Your task to perform on an android device: add a contact Image 0: 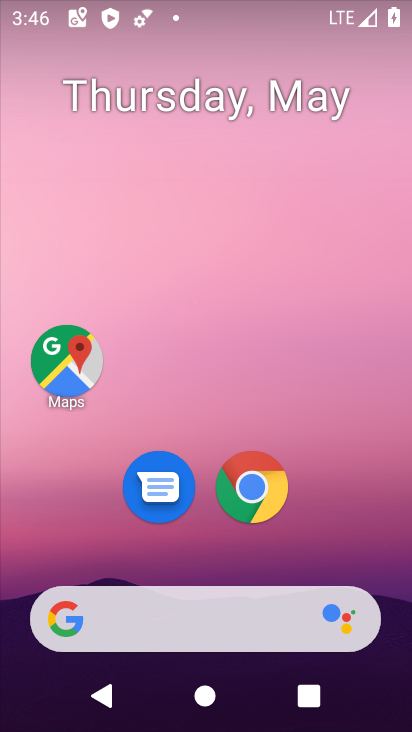
Step 0: drag from (246, 556) to (246, 59)
Your task to perform on an android device: add a contact Image 1: 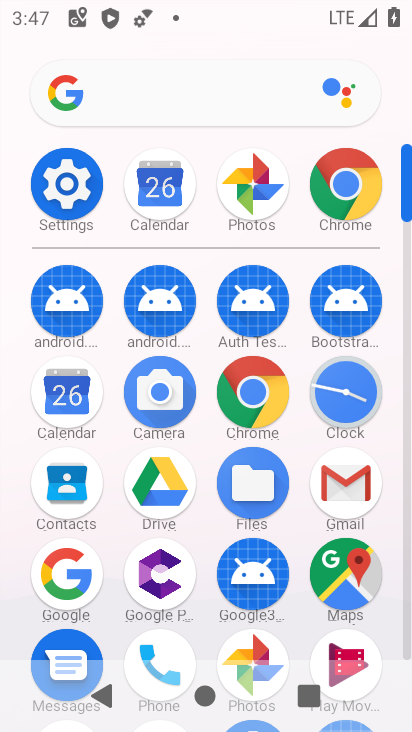
Step 1: click (83, 499)
Your task to perform on an android device: add a contact Image 2: 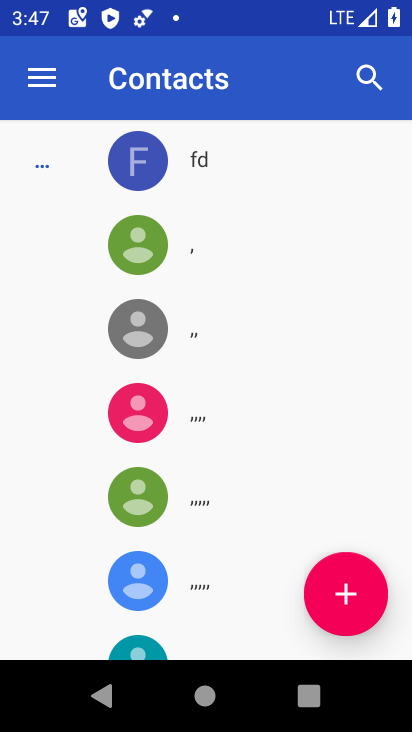
Step 2: click (341, 602)
Your task to perform on an android device: add a contact Image 3: 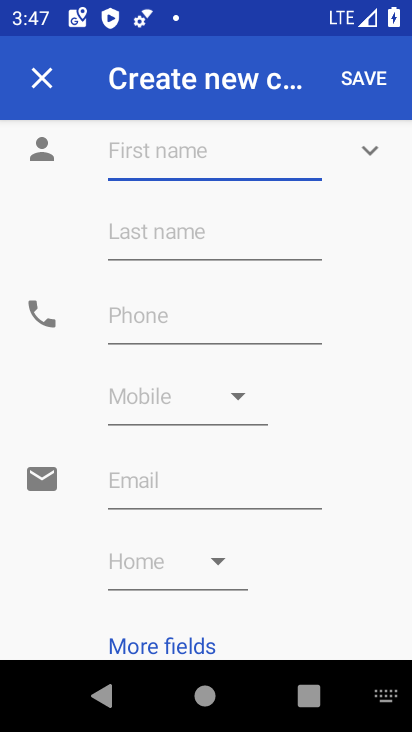
Step 3: type "sionioajdn"
Your task to perform on an android device: add a contact Image 4: 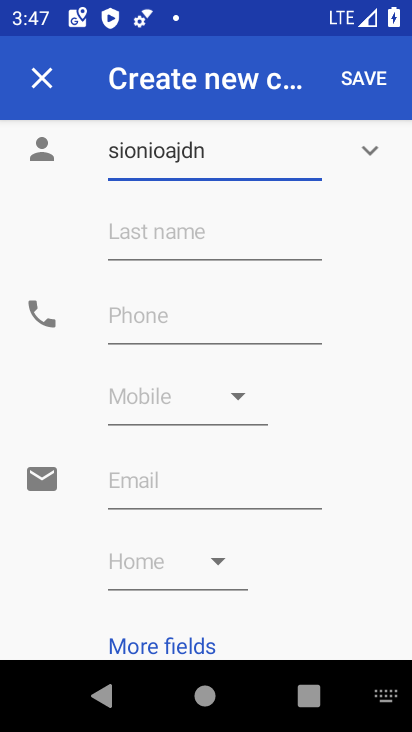
Step 4: click (215, 327)
Your task to perform on an android device: add a contact Image 5: 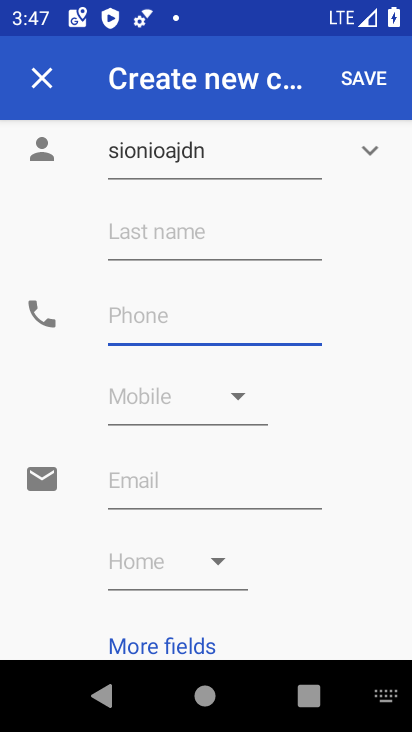
Step 5: type "9778578697"
Your task to perform on an android device: add a contact Image 6: 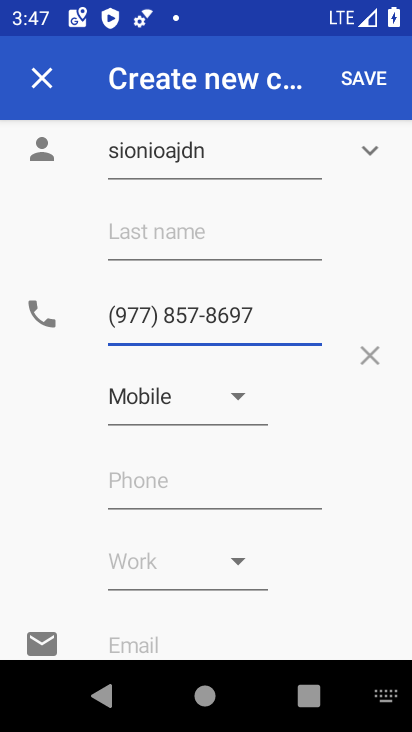
Step 6: click (337, 71)
Your task to perform on an android device: add a contact Image 7: 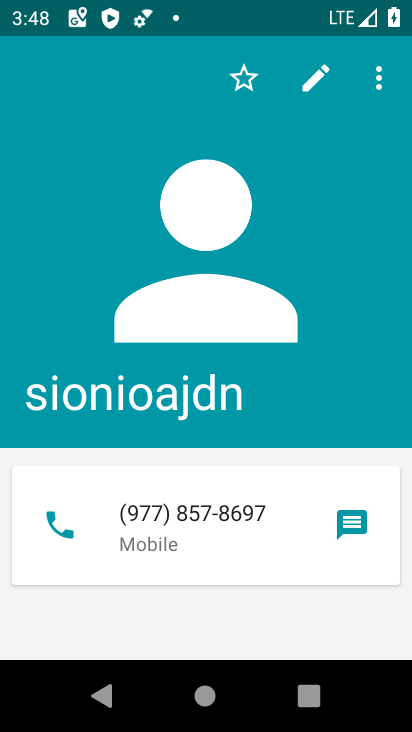
Step 7: task complete